Your task to perform on an android device: open wifi settings Image 0: 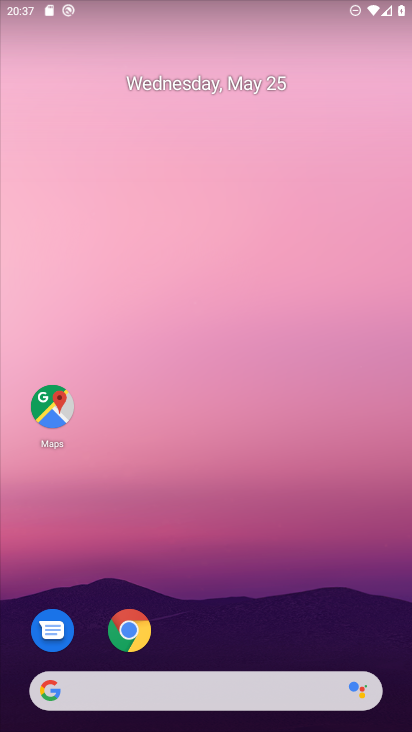
Step 0: drag from (217, 616) to (227, 194)
Your task to perform on an android device: open wifi settings Image 1: 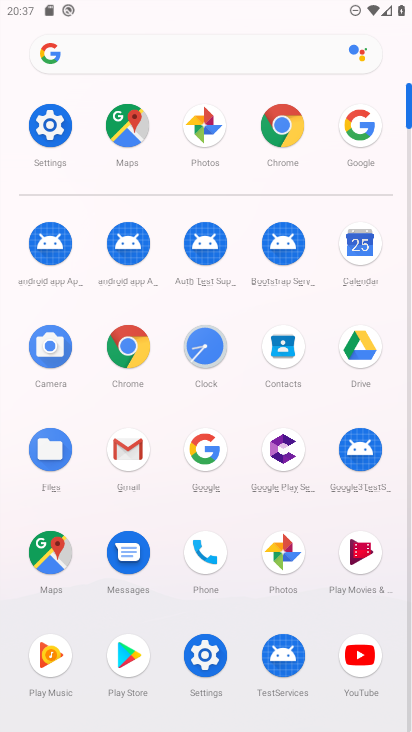
Step 1: click (55, 128)
Your task to perform on an android device: open wifi settings Image 2: 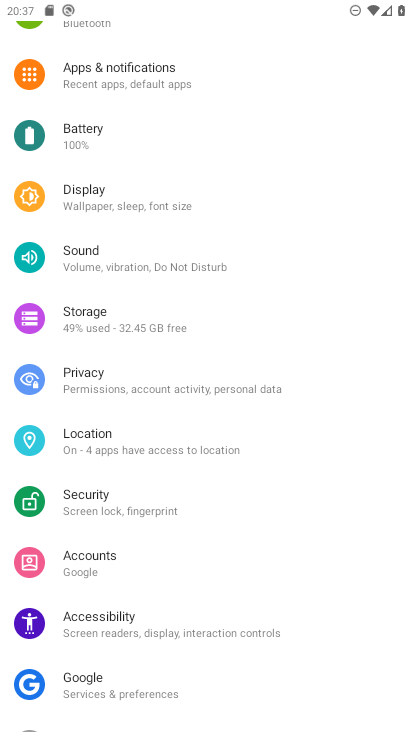
Step 2: drag from (135, 89) to (162, 478)
Your task to perform on an android device: open wifi settings Image 3: 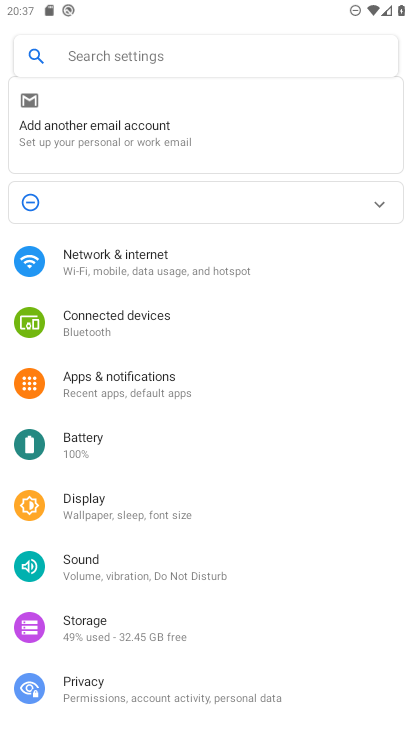
Step 3: click (104, 268)
Your task to perform on an android device: open wifi settings Image 4: 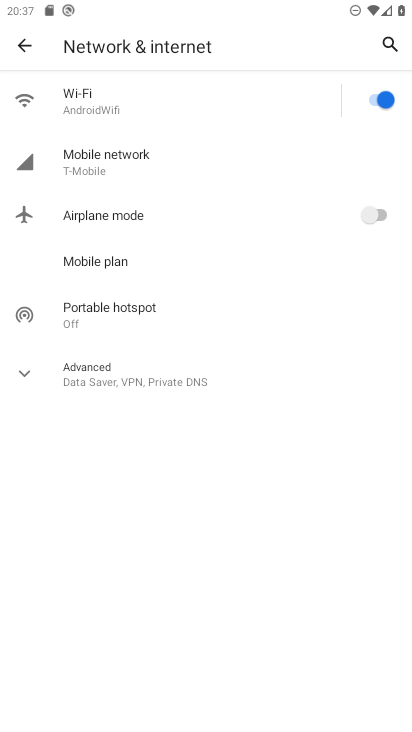
Step 4: click (143, 104)
Your task to perform on an android device: open wifi settings Image 5: 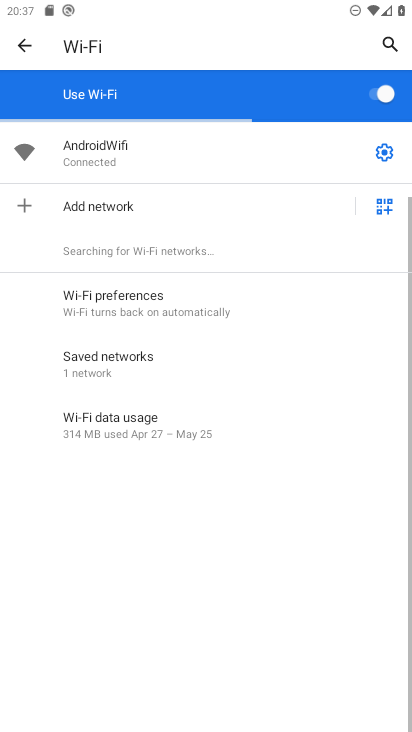
Step 5: click (158, 154)
Your task to perform on an android device: open wifi settings Image 6: 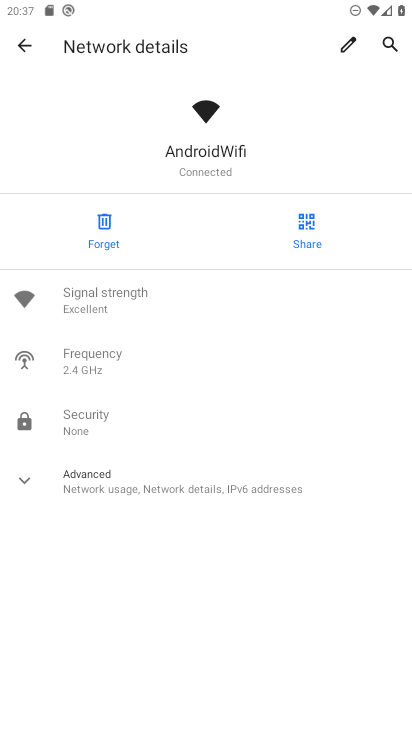
Step 6: task complete